Your task to perform on an android device: add a contact Image 0: 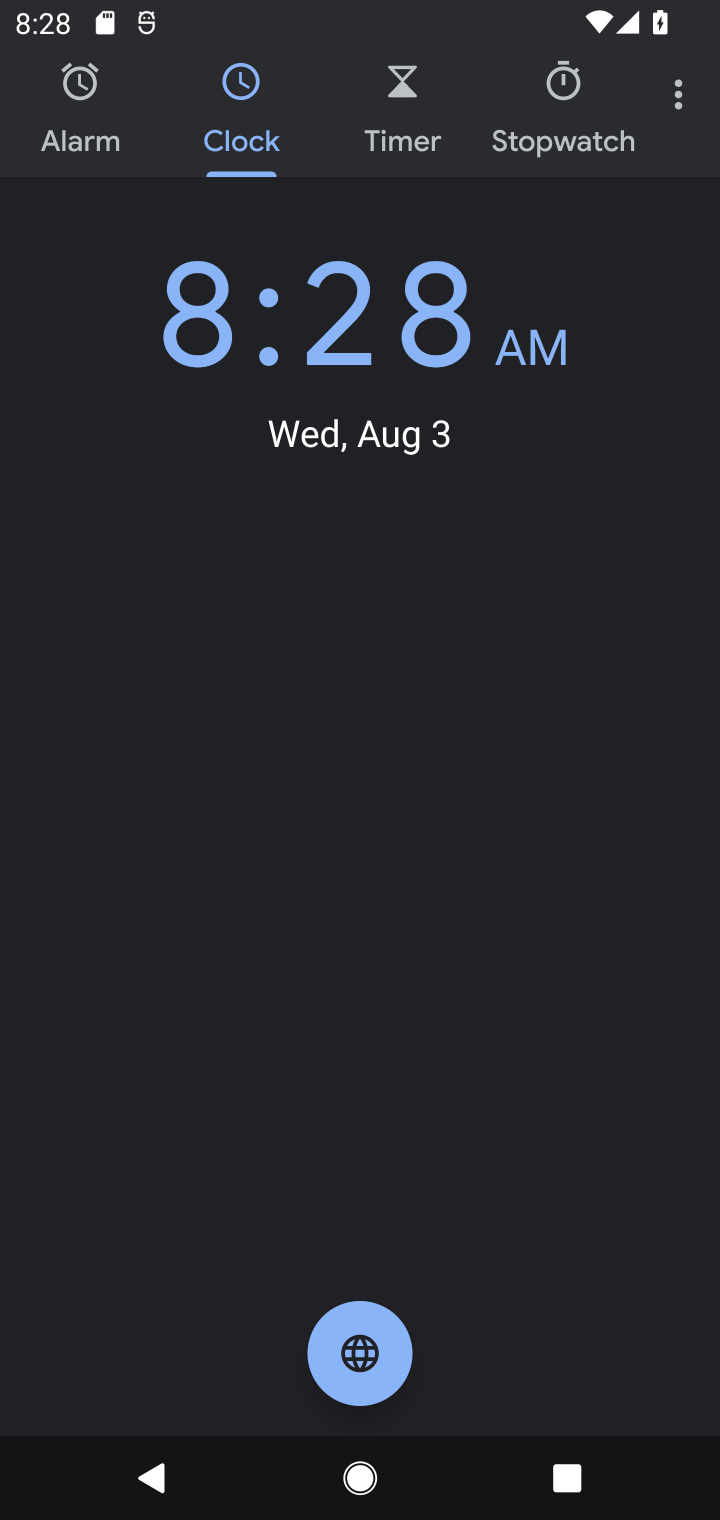
Step 0: press home button
Your task to perform on an android device: add a contact Image 1: 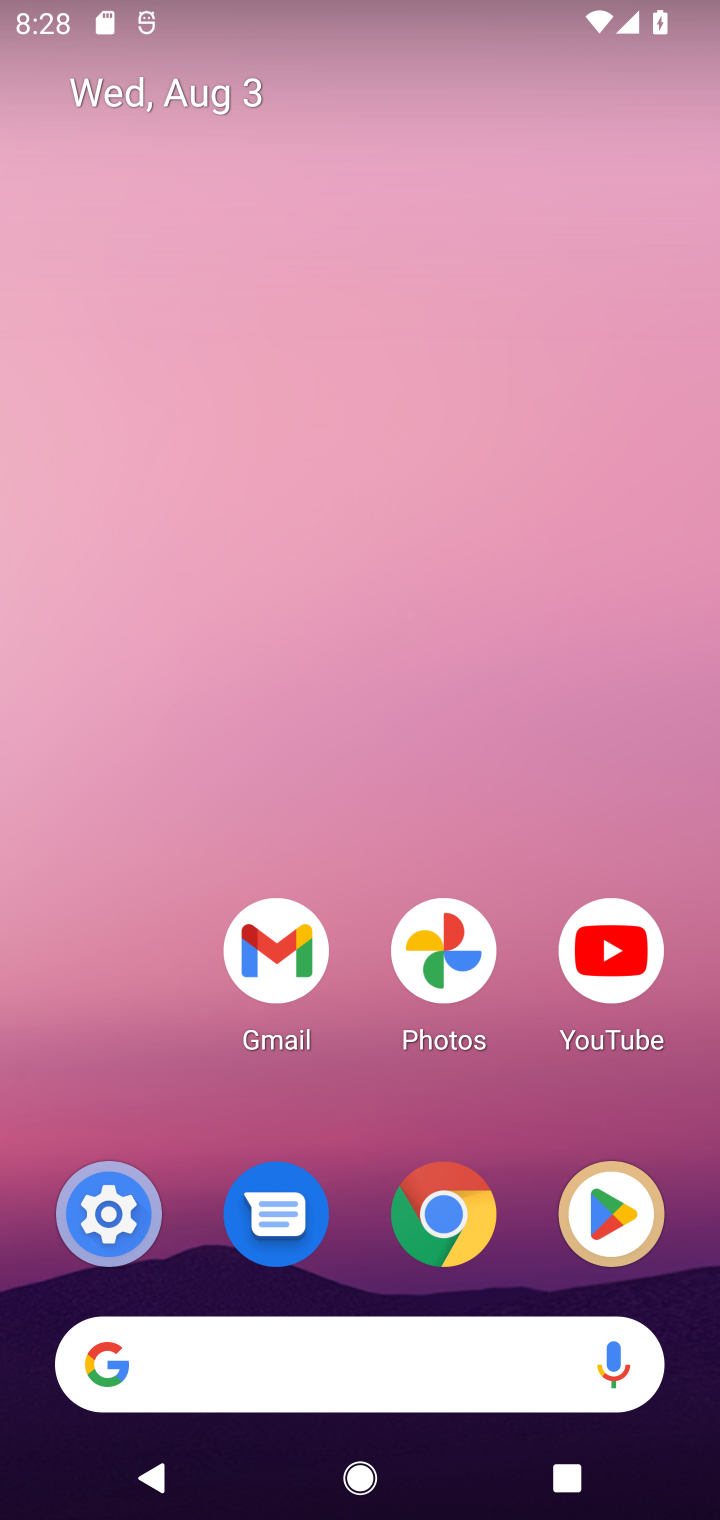
Step 1: drag from (322, 1087) to (290, 62)
Your task to perform on an android device: add a contact Image 2: 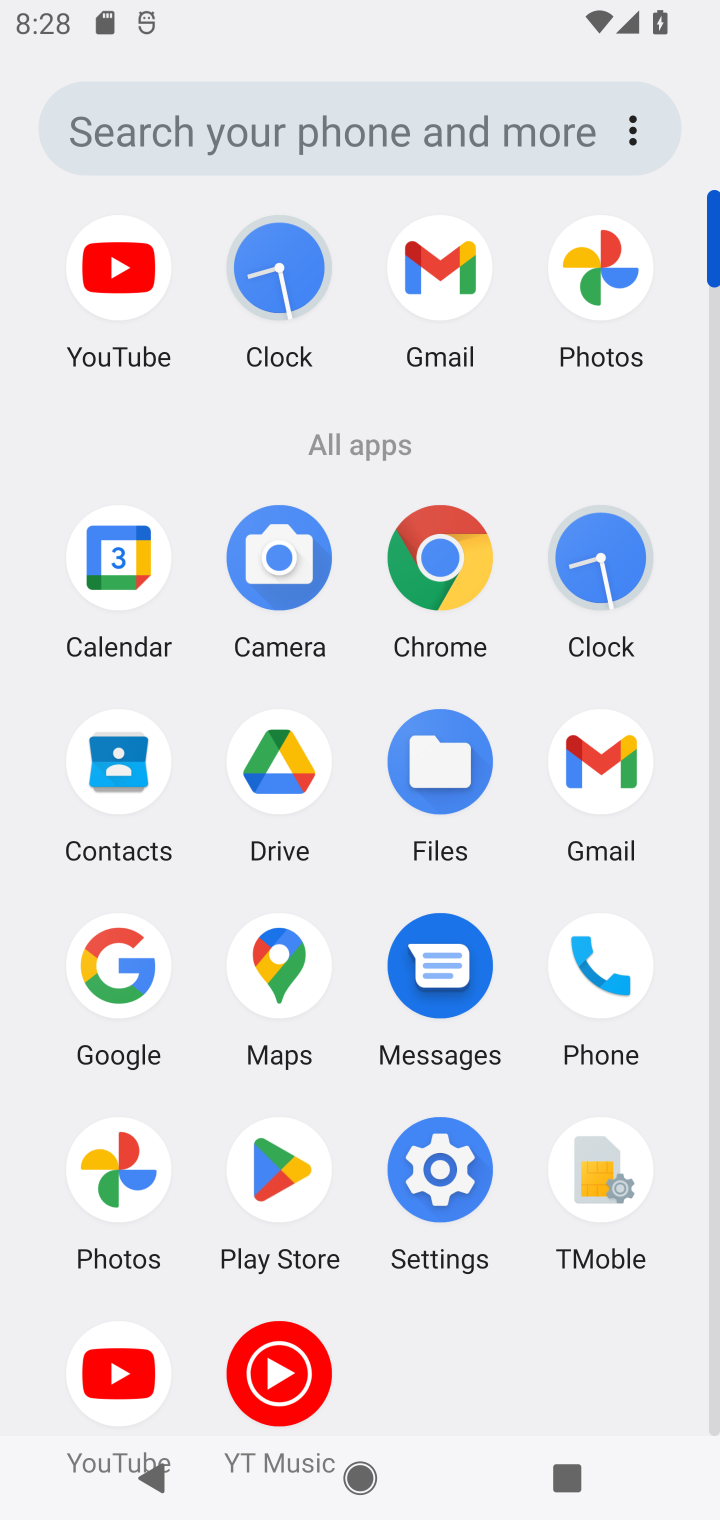
Step 2: click (112, 746)
Your task to perform on an android device: add a contact Image 3: 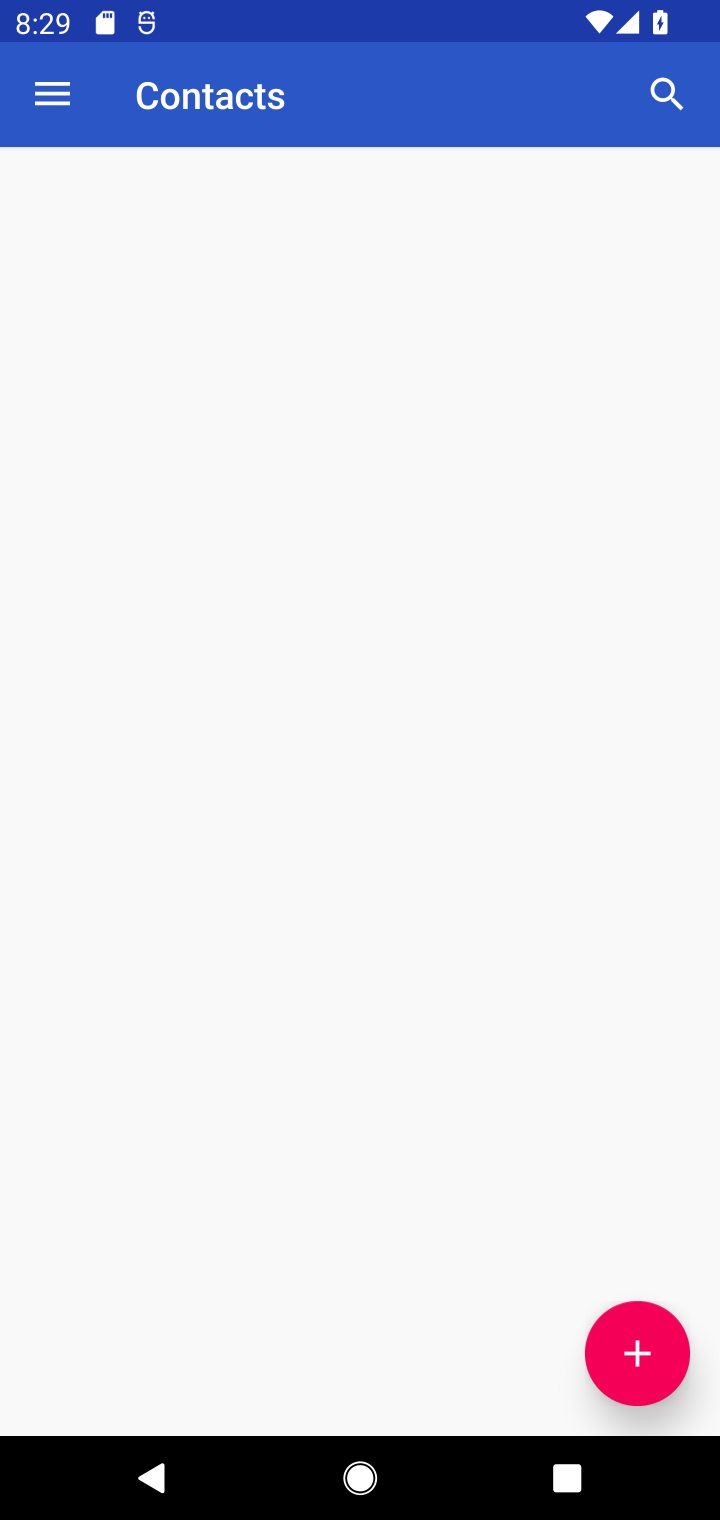
Step 3: click (616, 1340)
Your task to perform on an android device: add a contact Image 4: 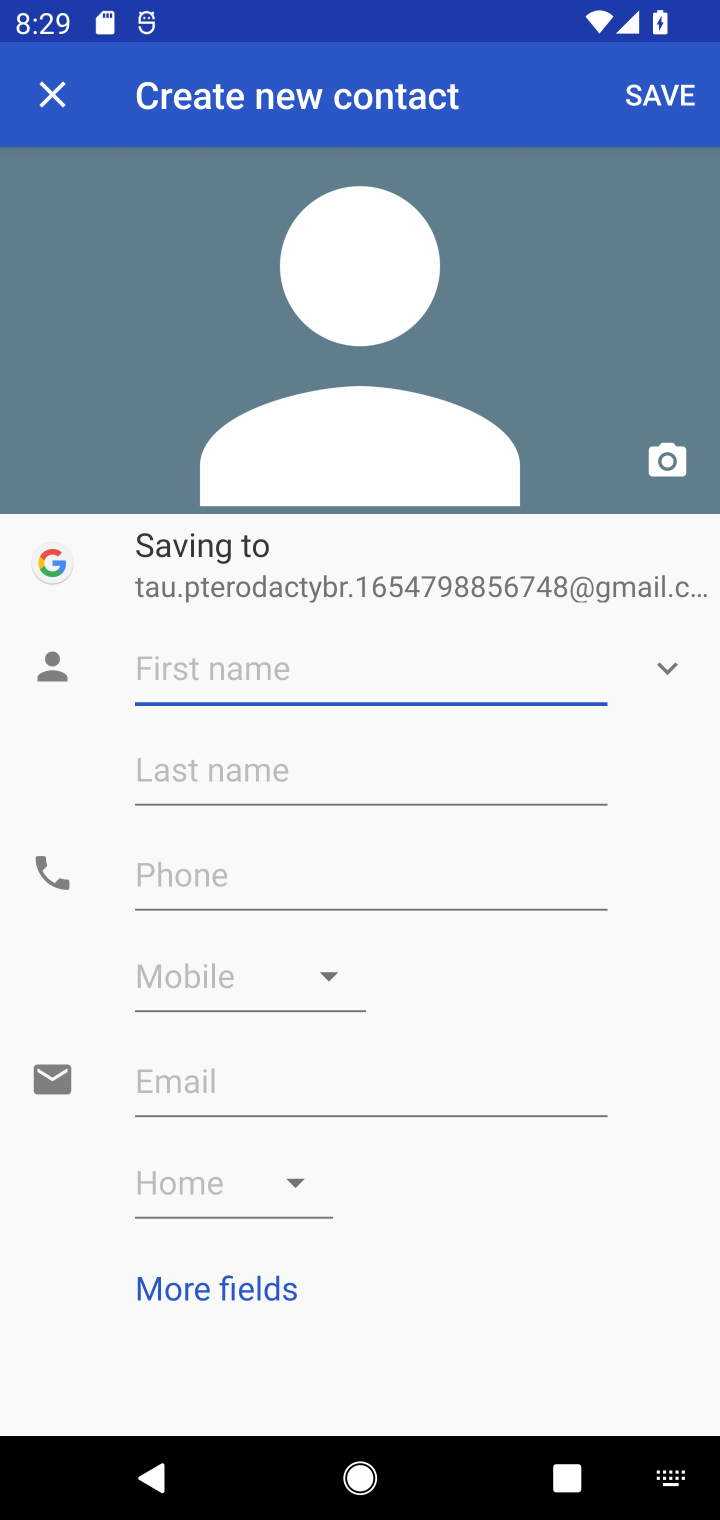
Step 4: type "nhjui"
Your task to perform on an android device: add a contact Image 5: 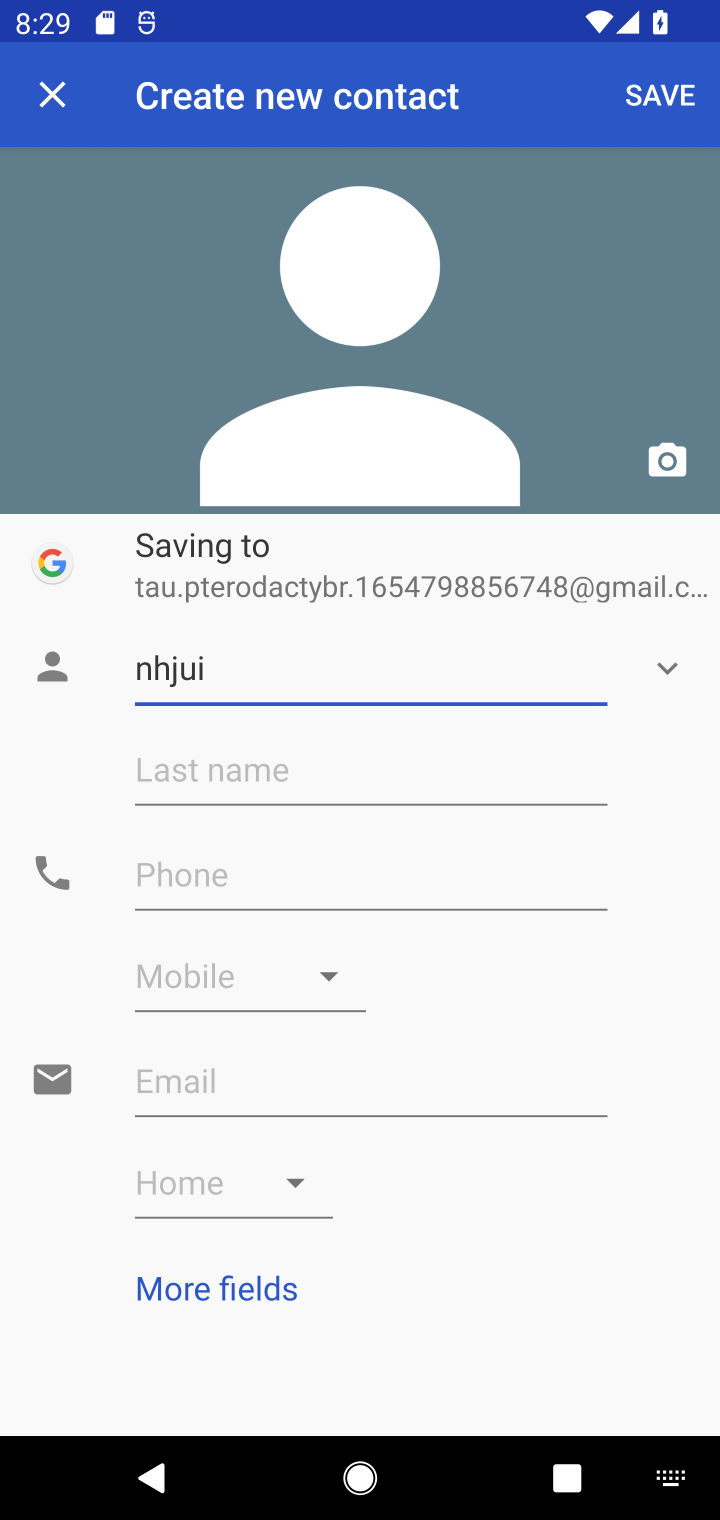
Step 5: click (159, 888)
Your task to perform on an android device: add a contact Image 6: 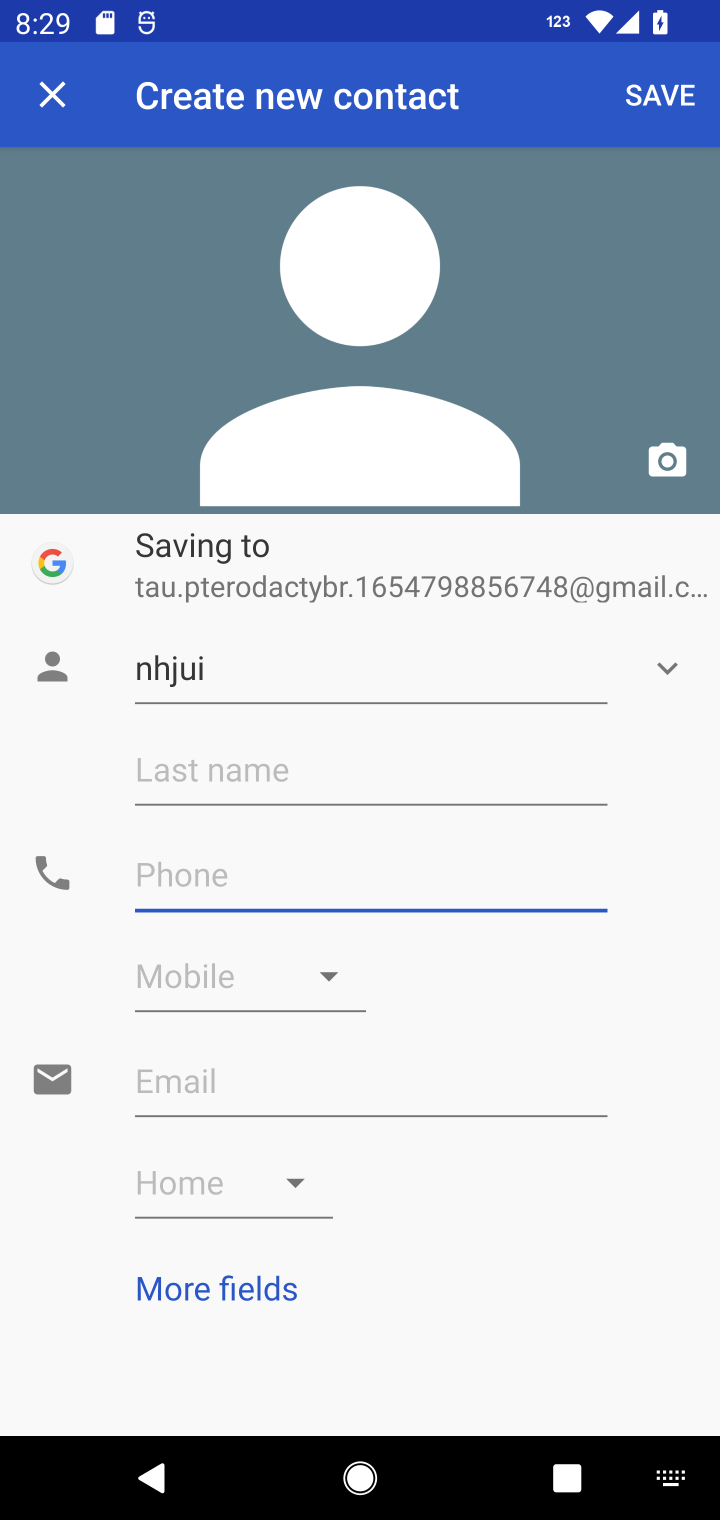
Step 6: type "5678909865"
Your task to perform on an android device: add a contact Image 7: 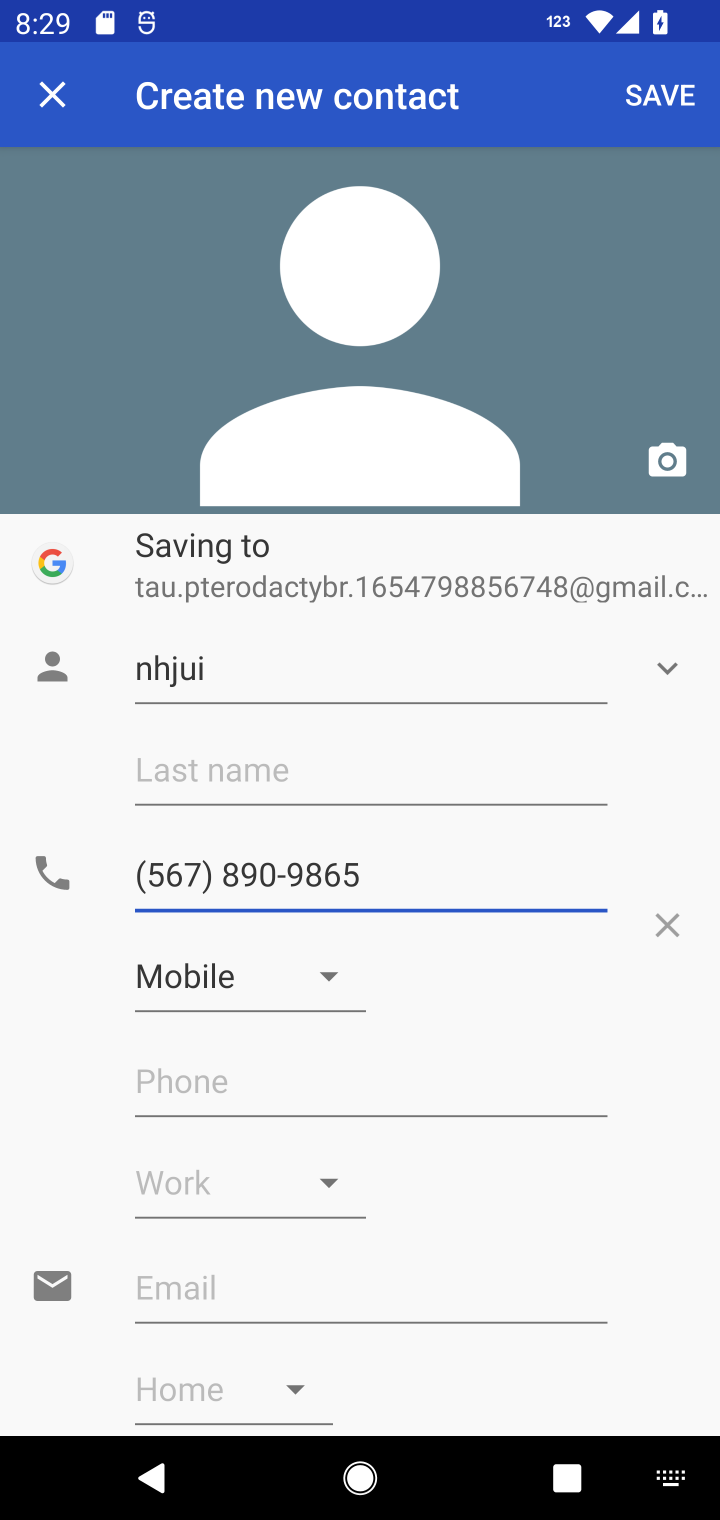
Step 7: click (661, 98)
Your task to perform on an android device: add a contact Image 8: 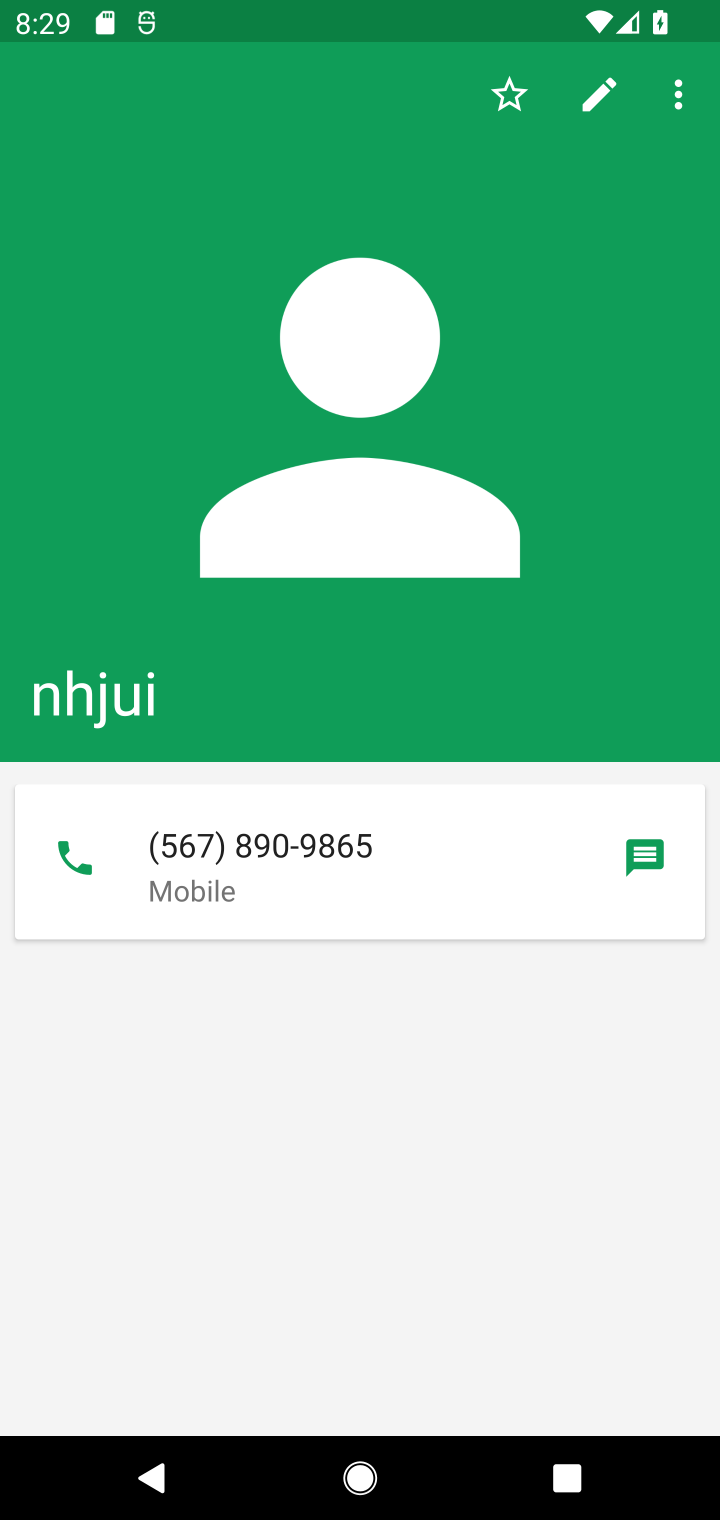
Step 8: task complete